Your task to perform on an android device: open chrome and create a bookmark for the current page Image 0: 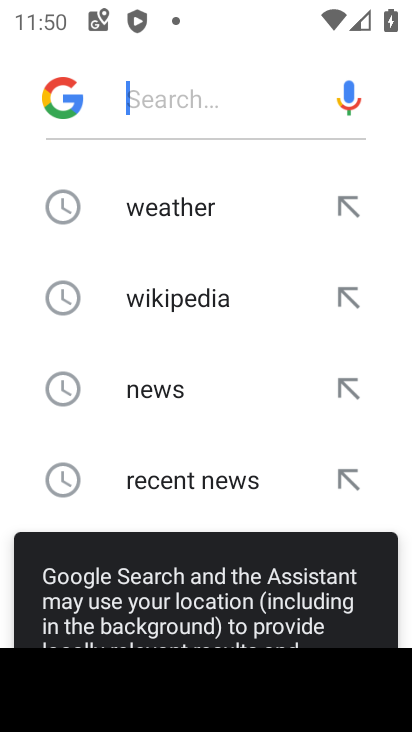
Step 0: press home button
Your task to perform on an android device: open chrome and create a bookmark for the current page Image 1: 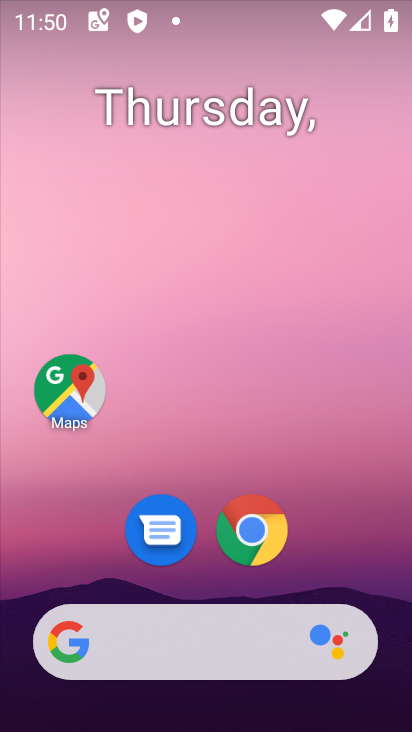
Step 1: click (252, 530)
Your task to perform on an android device: open chrome and create a bookmark for the current page Image 2: 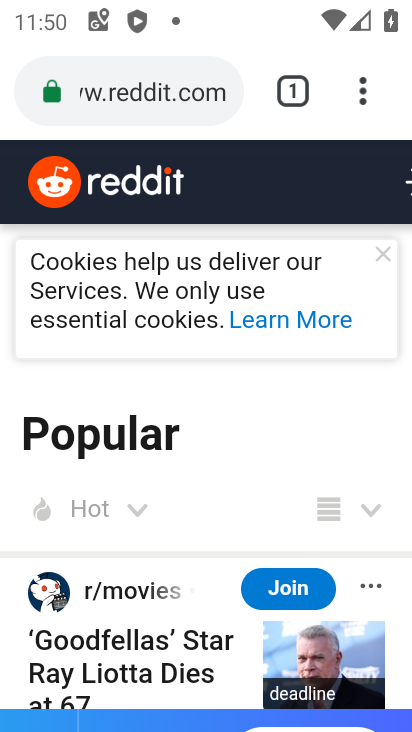
Step 2: click (364, 95)
Your task to perform on an android device: open chrome and create a bookmark for the current page Image 3: 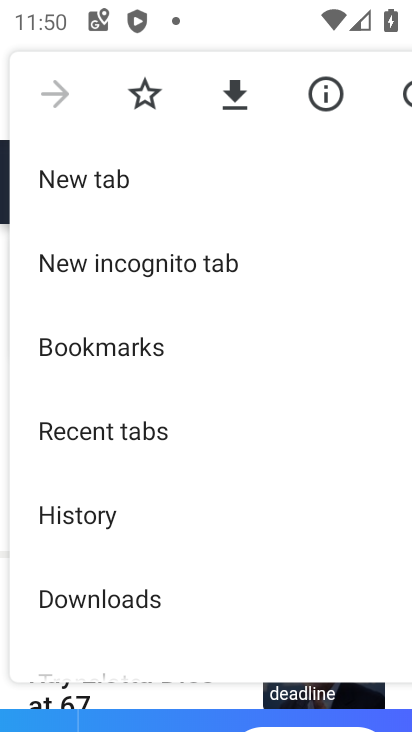
Step 3: click (143, 99)
Your task to perform on an android device: open chrome and create a bookmark for the current page Image 4: 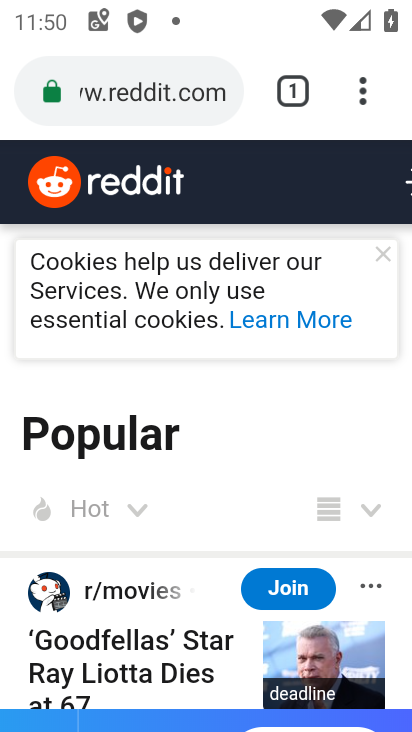
Step 4: task complete